Your task to perform on an android device: Open location settings Image 0: 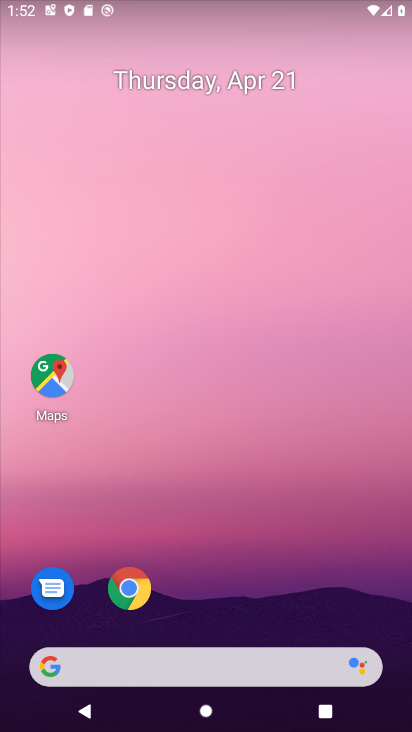
Step 0: drag from (240, 629) to (231, 362)
Your task to perform on an android device: Open location settings Image 1: 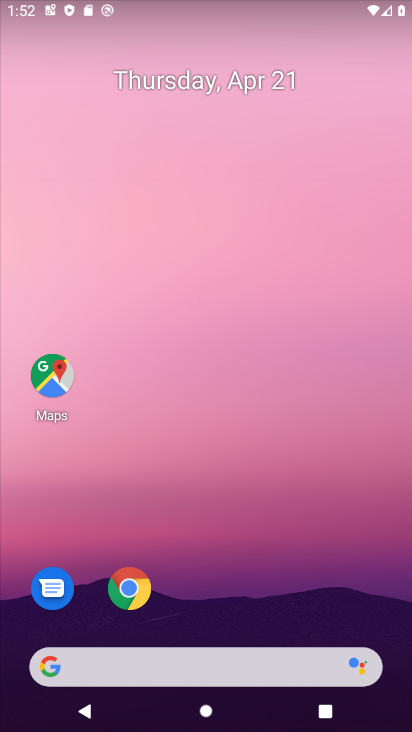
Step 1: drag from (209, 552) to (198, 89)
Your task to perform on an android device: Open location settings Image 2: 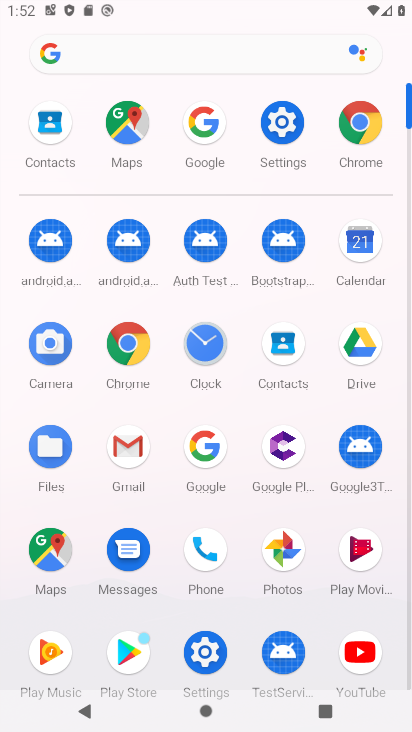
Step 2: click (271, 125)
Your task to perform on an android device: Open location settings Image 3: 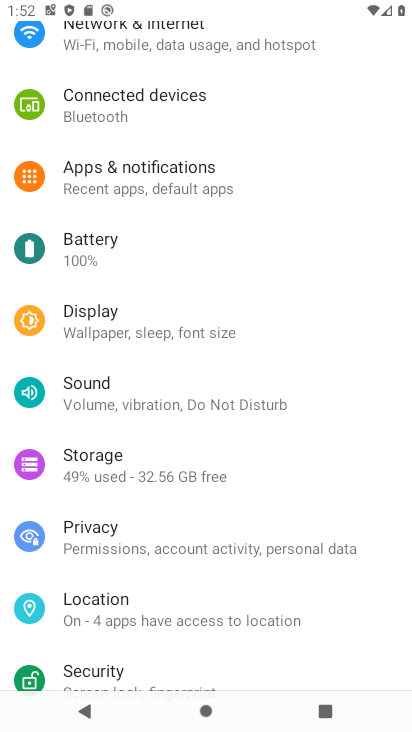
Step 3: click (131, 604)
Your task to perform on an android device: Open location settings Image 4: 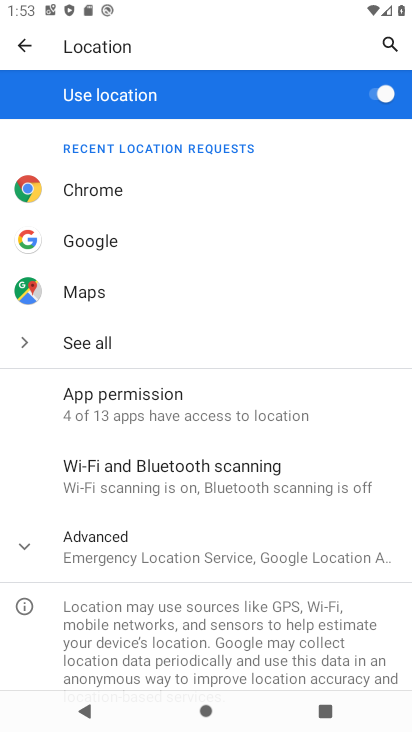
Step 4: task complete